Your task to perform on an android device: turn on sleep mode Image 0: 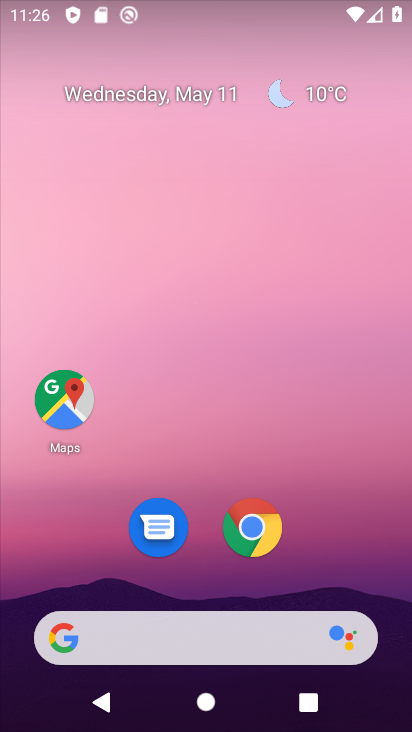
Step 0: drag from (233, 582) to (273, 18)
Your task to perform on an android device: turn on sleep mode Image 1: 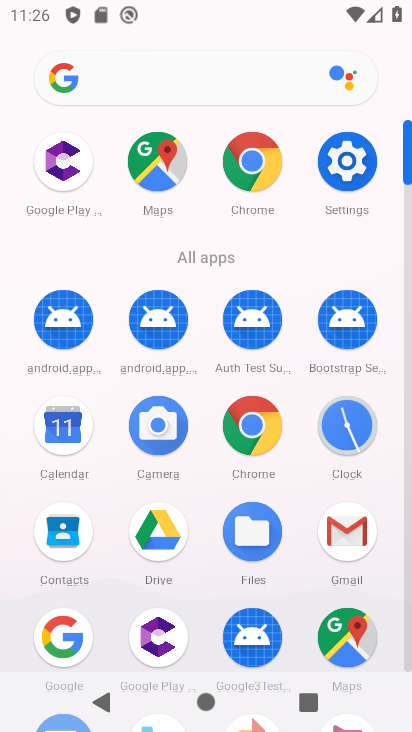
Step 1: click (362, 177)
Your task to perform on an android device: turn on sleep mode Image 2: 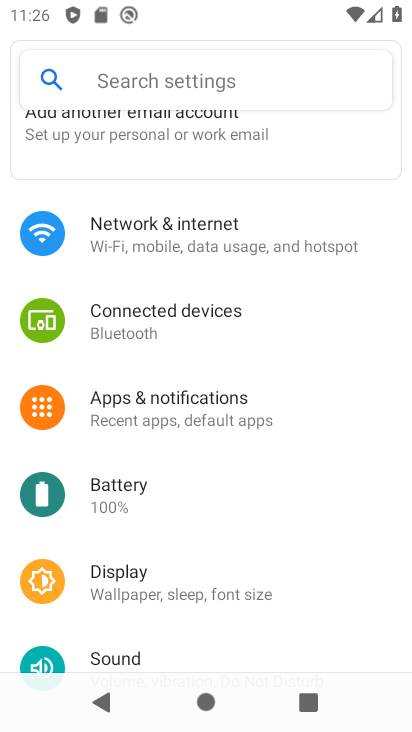
Step 2: click (237, 97)
Your task to perform on an android device: turn on sleep mode Image 3: 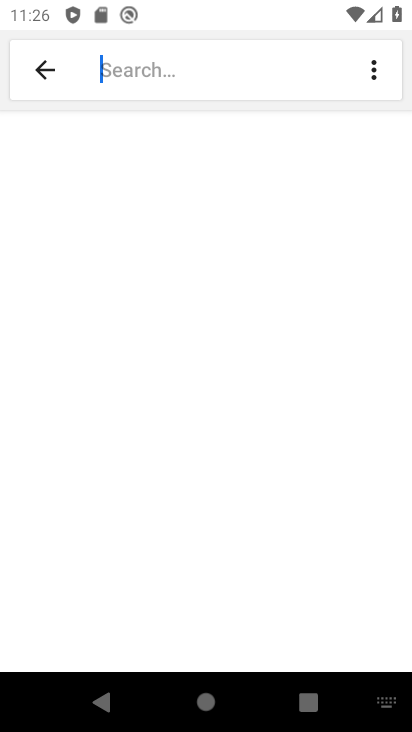
Step 3: type "sleep mode"
Your task to perform on an android device: turn on sleep mode Image 4: 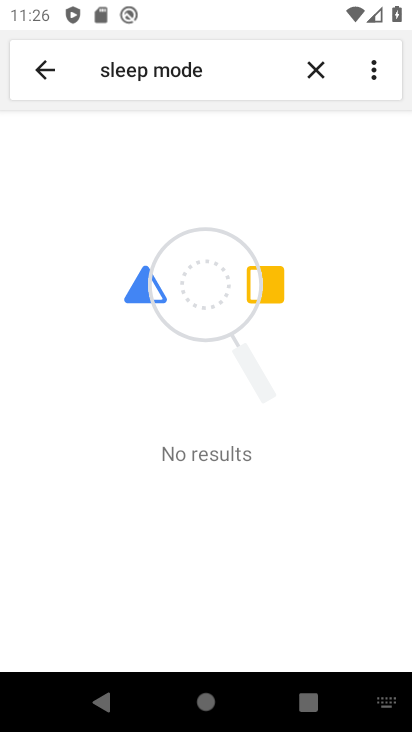
Step 4: task complete